Your task to perform on an android device: Find coffee shops on Maps Image 0: 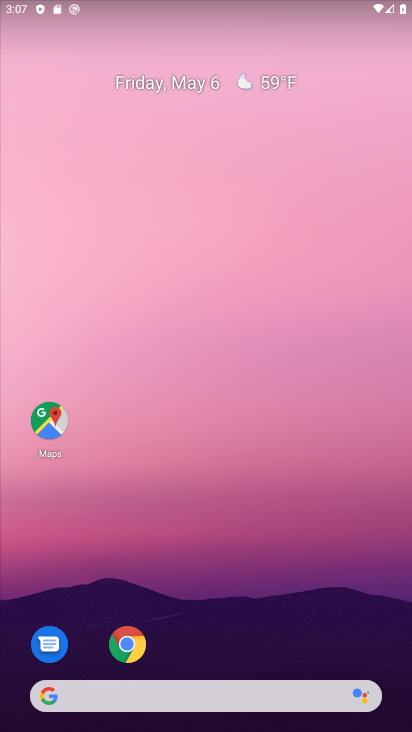
Step 0: click (52, 423)
Your task to perform on an android device: Find coffee shops on Maps Image 1: 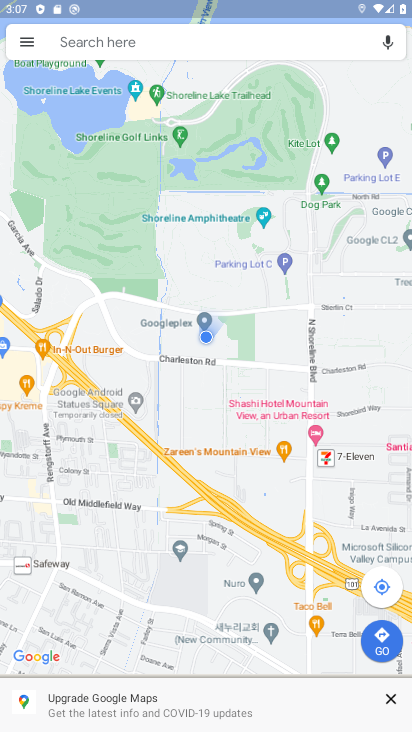
Step 1: click (206, 43)
Your task to perform on an android device: Find coffee shops on Maps Image 2: 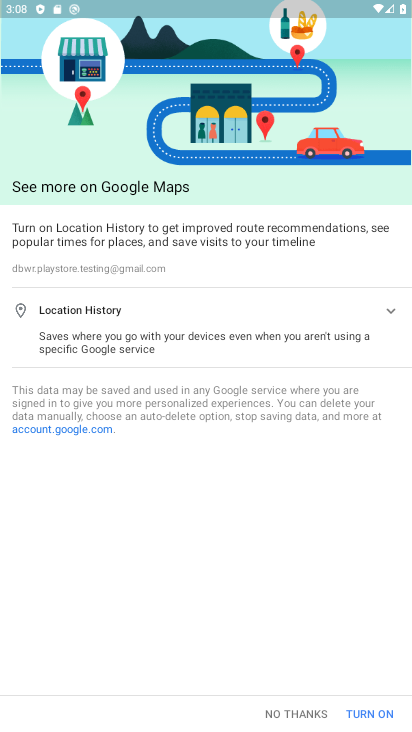
Step 2: click (286, 710)
Your task to perform on an android device: Find coffee shops on Maps Image 3: 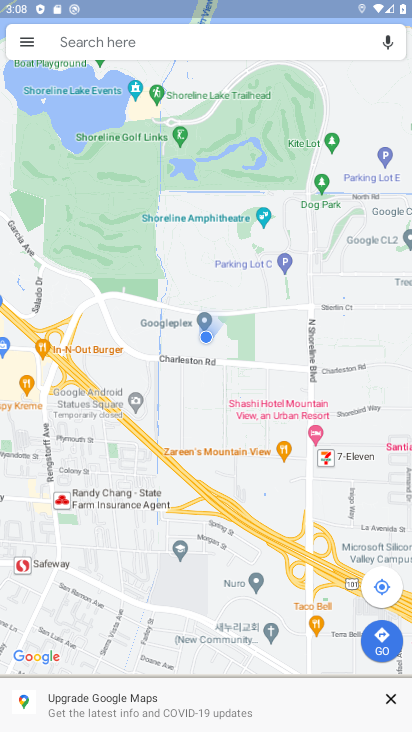
Step 3: click (251, 44)
Your task to perform on an android device: Find coffee shops on Maps Image 4: 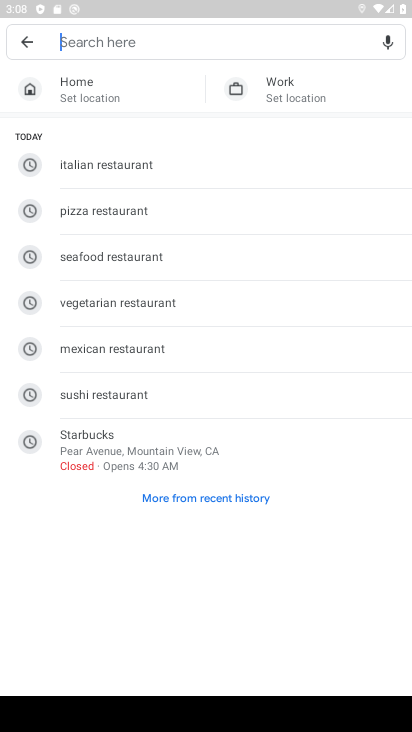
Step 4: type "Coffee shops"
Your task to perform on an android device: Find coffee shops on Maps Image 5: 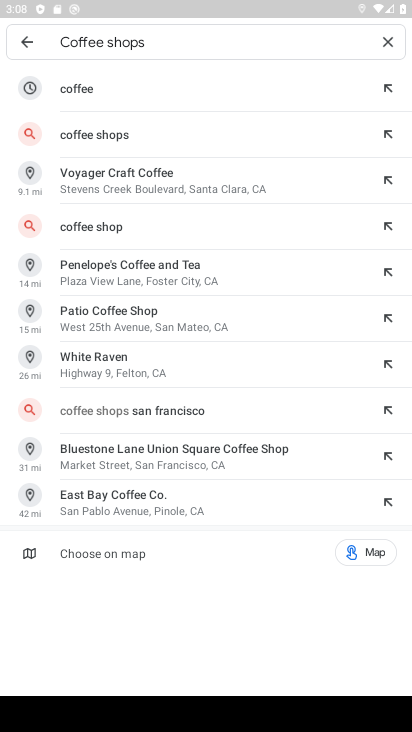
Step 5: click (82, 133)
Your task to perform on an android device: Find coffee shops on Maps Image 6: 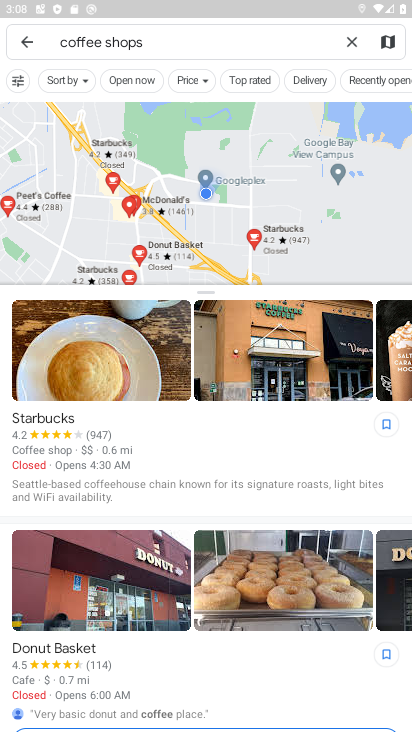
Step 6: task complete